Your task to perform on an android device: add a label to a message in the gmail app Image 0: 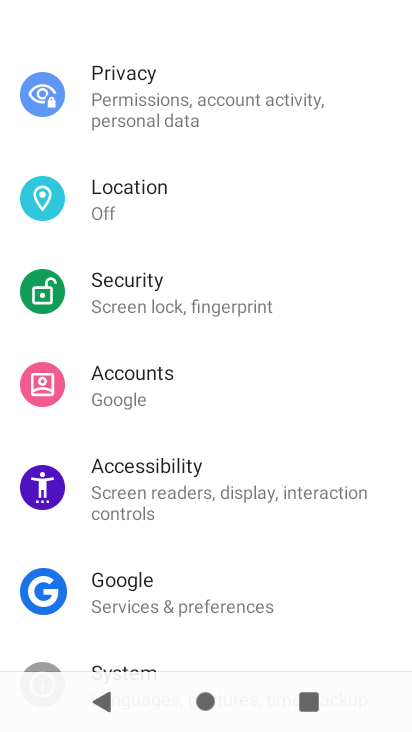
Step 0: press home button
Your task to perform on an android device: add a label to a message in the gmail app Image 1: 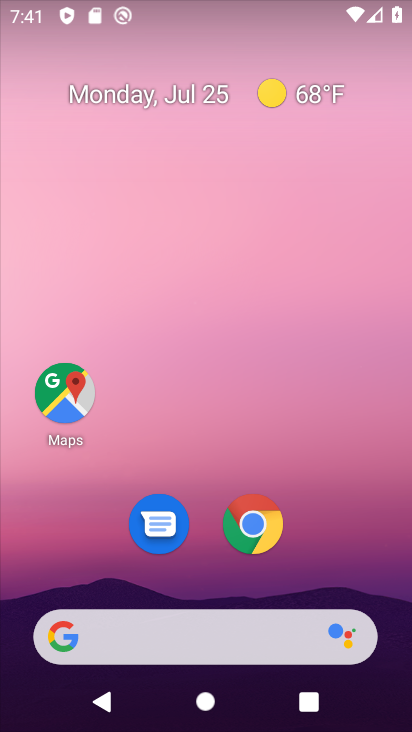
Step 1: drag from (318, 550) to (320, 92)
Your task to perform on an android device: add a label to a message in the gmail app Image 2: 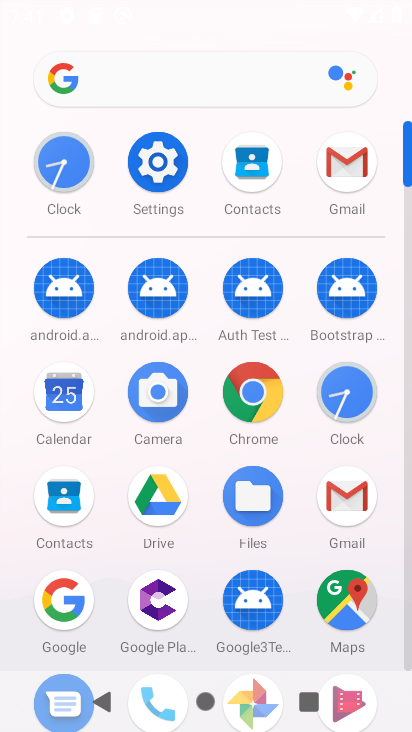
Step 2: click (336, 171)
Your task to perform on an android device: add a label to a message in the gmail app Image 3: 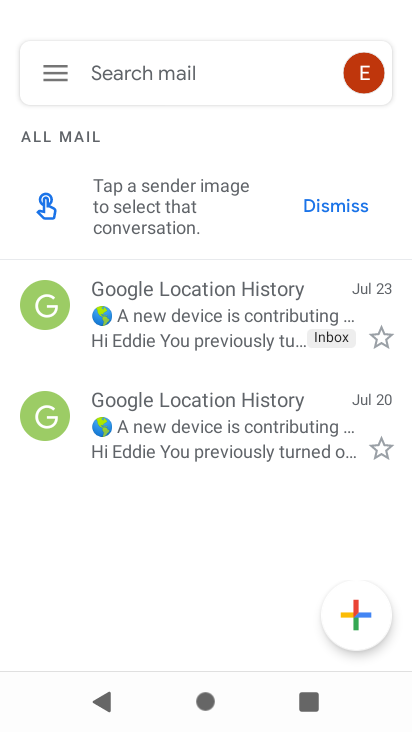
Step 3: click (56, 77)
Your task to perform on an android device: add a label to a message in the gmail app Image 4: 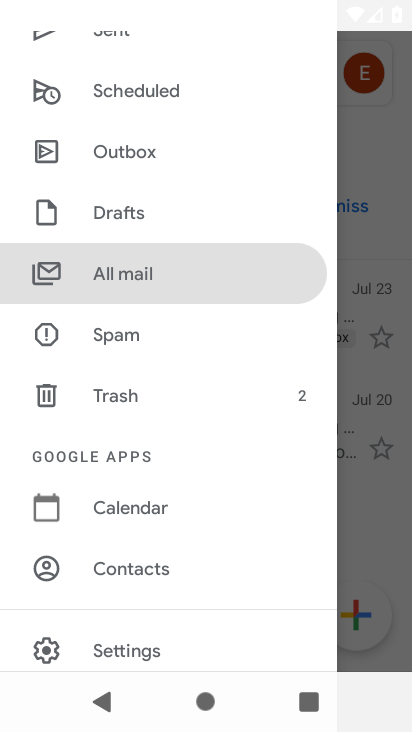
Step 4: click (160, 390)
Your task to perform on an android device: add a label to a message in the gmail app Image 5: 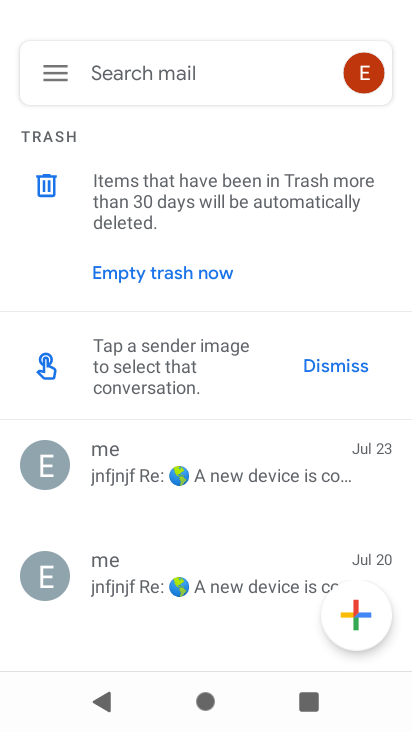
Step 5: click (222, 464)
Your task to perform on an android device: add a label to a message in the gmail app Image 6: 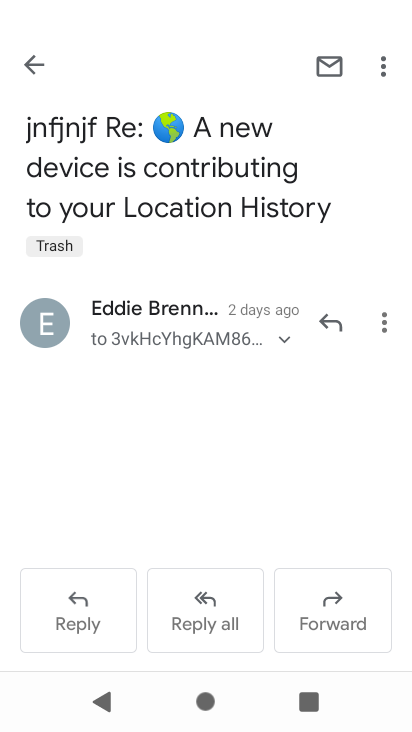
Step 6: click (383, 65)
Your task to perform on an android device: add a label to a message in the gmail app Image 7: 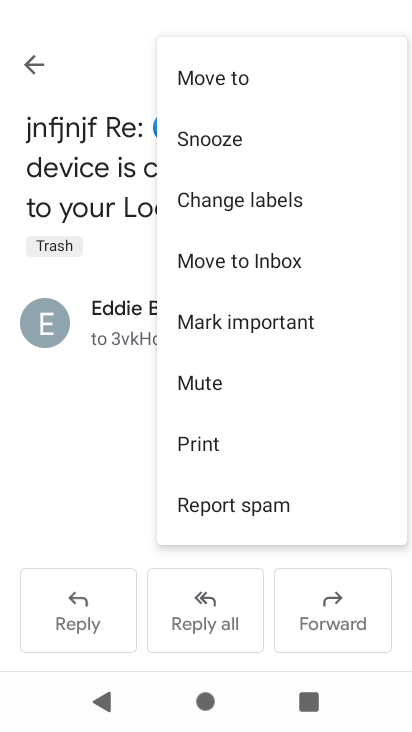
Step 7: click (287, 251)
Your task to perform on an android device: add a label to a message in the gmail app Image 8: 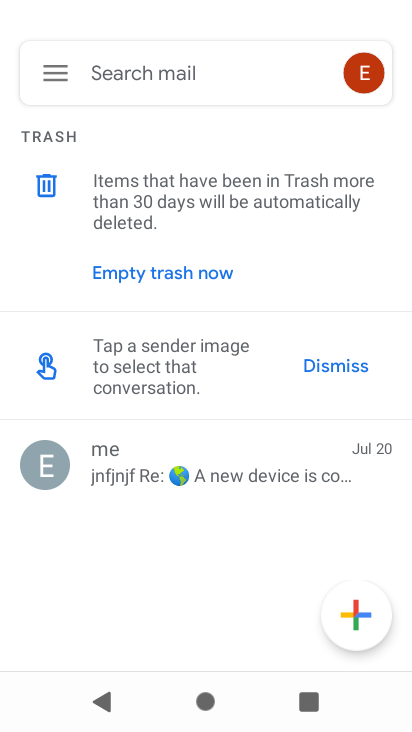
Step 8: task complete